Your task to perform on an android device: Show me popular videos on Youtube Image 0: 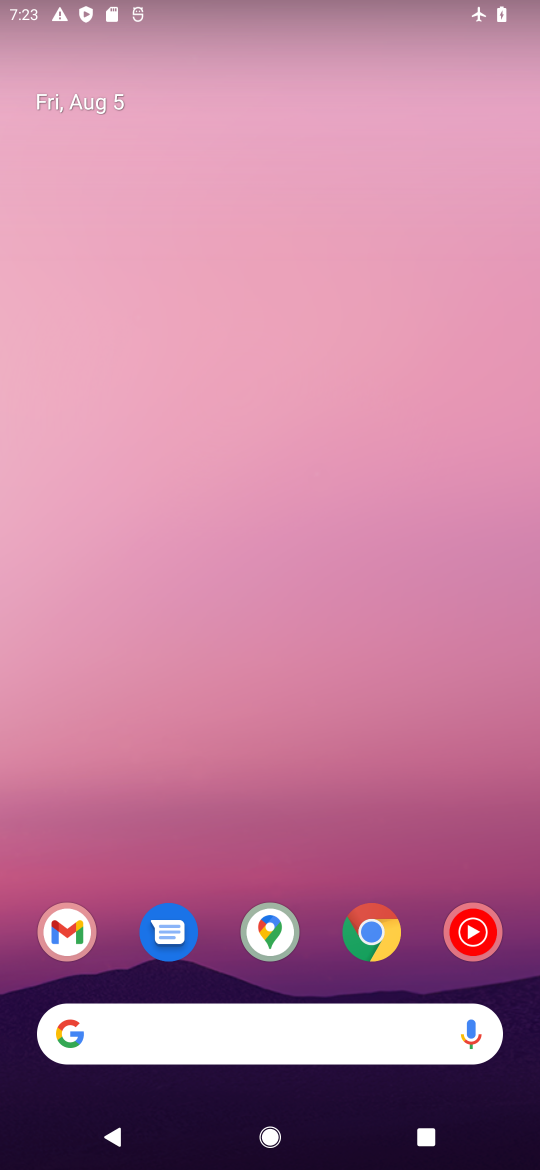
Step 0: drag from (245, 1046) to (314, 312)
Your task to perform on an android device: Show me popular videos on Youtube Image 1: 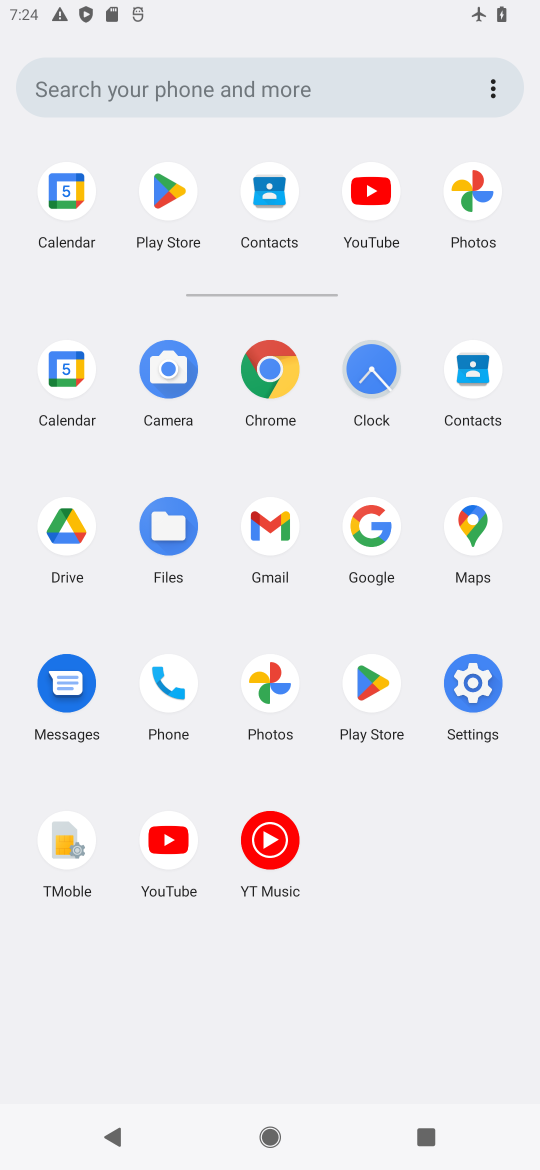
Step 1: click (169, 841)
Your task to perform on an android device: Show me popular videos on Youtube Image 2: 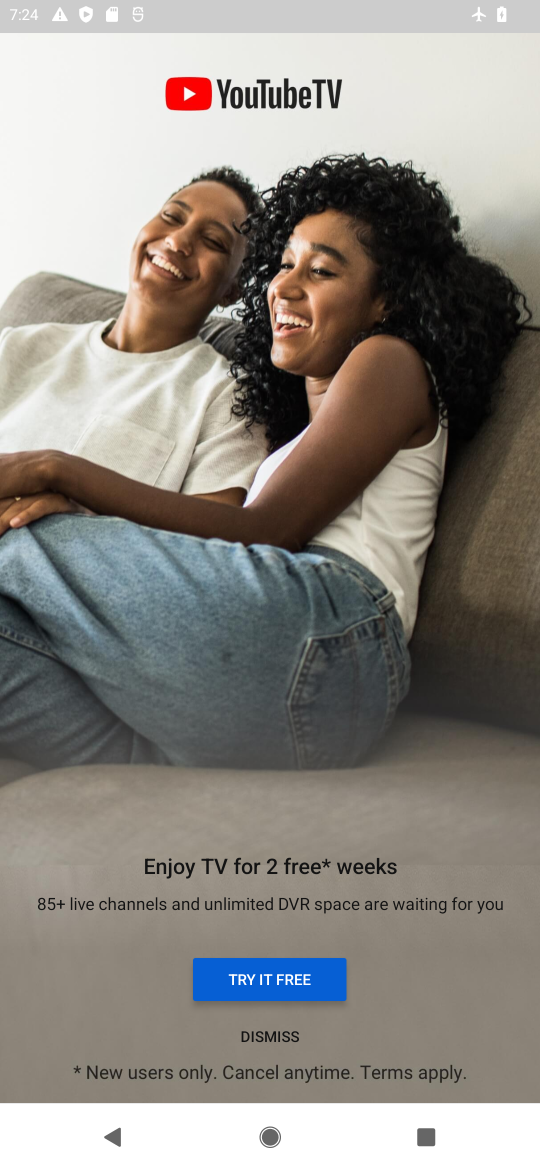
Step 2: click (286, 1036)
Your task to perform on an android device: Show me popular videos on Youtube Image 3: 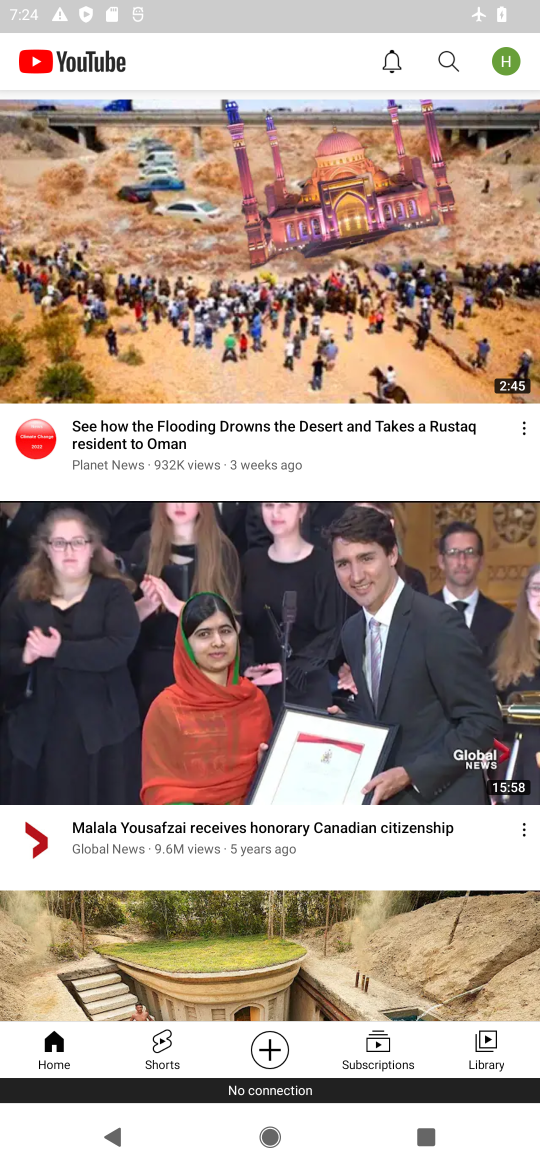
Step 3: click (449, 59)
Your task to perform on an android device: Show me popular videos on Youtube Image 4: 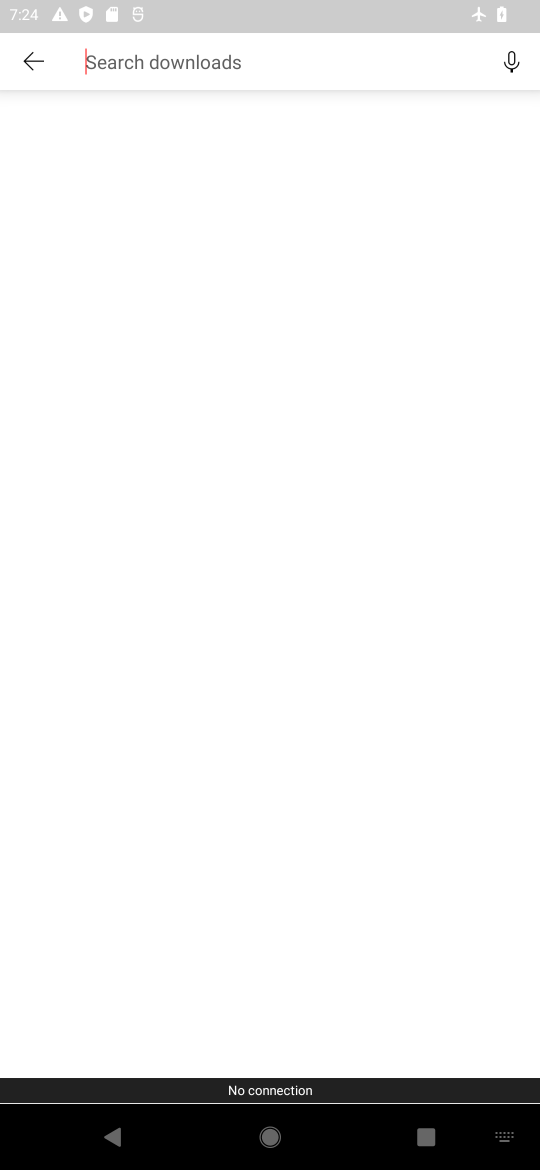
Step 4: click (381, 65)
Your task to perform on an android device: Show me popular videos on Youtube Image 5: 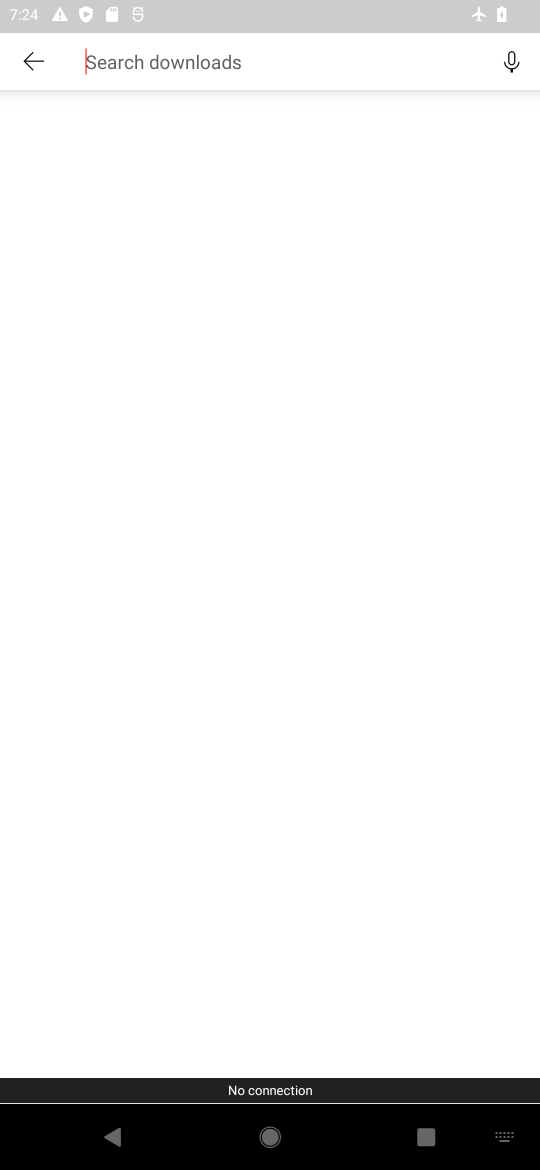
Step 5: type "popular video"
Your task to perform on an android device: Show me popular videos on Youtube Image 6: 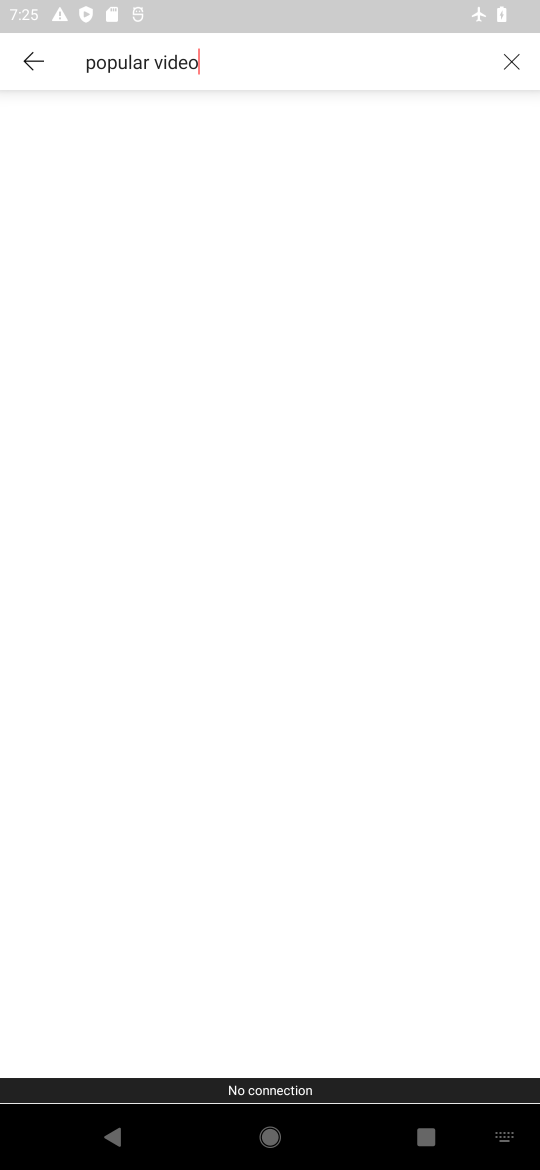
Step 6: task complete